Your task to perform on an android device: open sync settings in chrome Image 0: 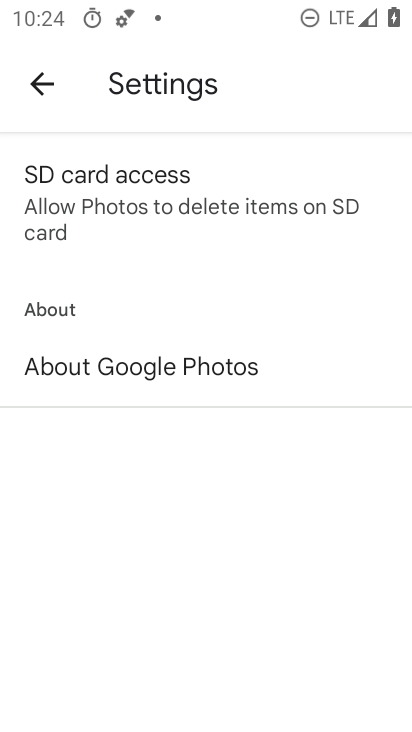
Step 0: press home button
Your task to perform on an android device: open sync settings in chrome Image 1: 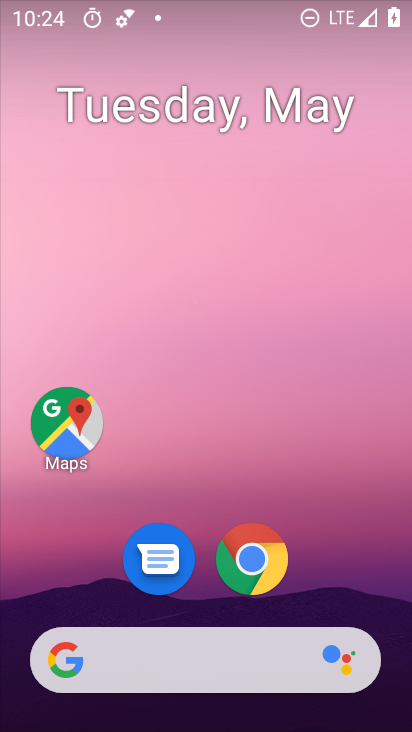
Step 1: drag from (395, 646) to (255, 0)
Your task to perform on an android device: open sync settings in chrome Image 2: 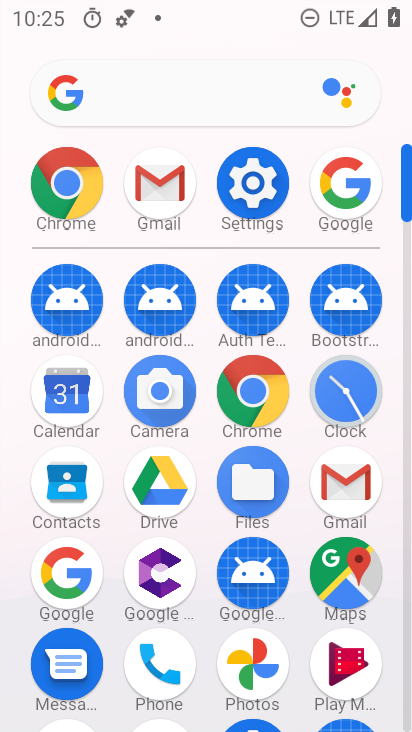
Step 2: click (253, 377)
Your task to perform on an android device: open sync settings in chrome Image 3: 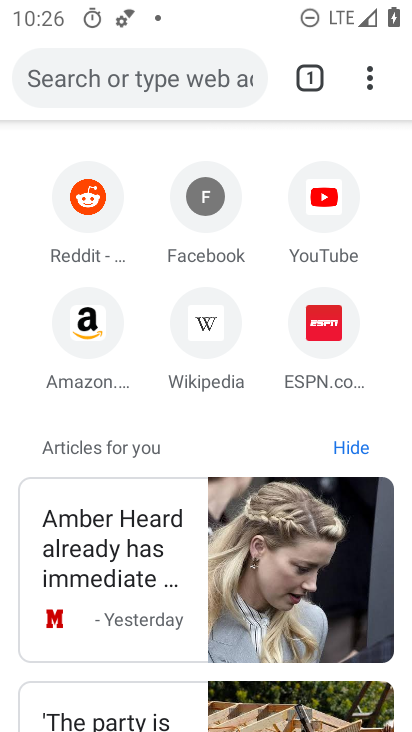
Step 3: click (377, 72)
Your task to perform on an android device: open sync settings in chrome Image 4: 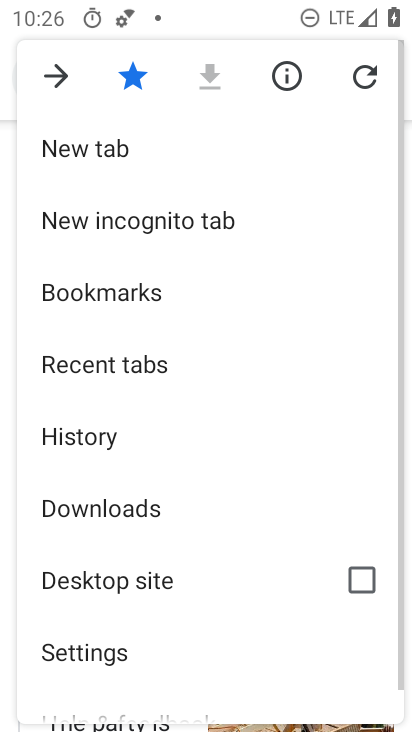
Step 4: click (133, 664)
Your task to perform on an android device: open sync settings in chrome Image 5: 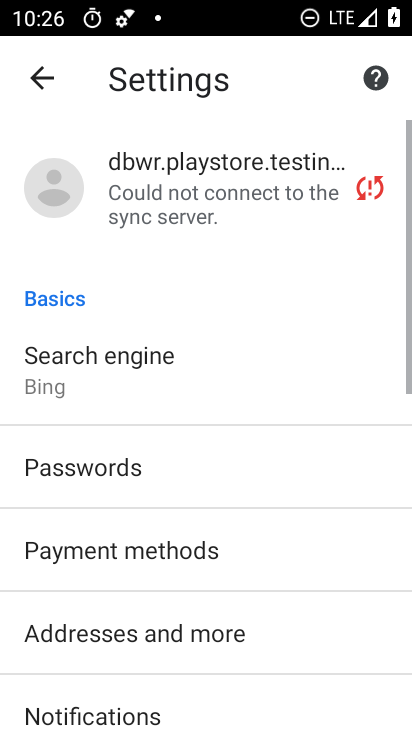
Step 5: drag from (140, 656) to (228, 48)
Your task to perform on an android device: open sync settings in chrome Image 6: 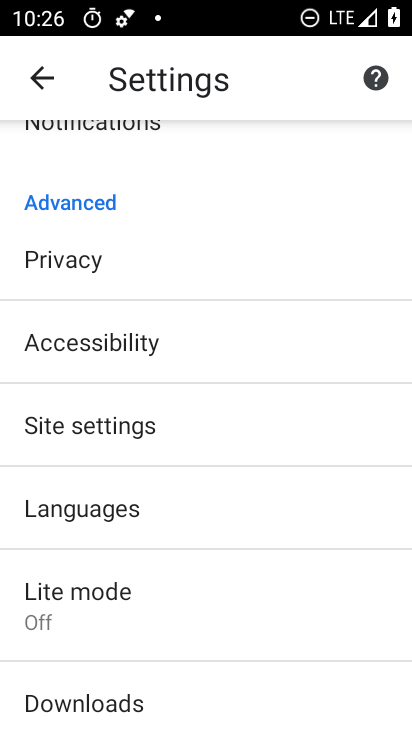
Step 6: click (117, 420)
Your task to perform on an android device: open sync settings in chrome Image 7: 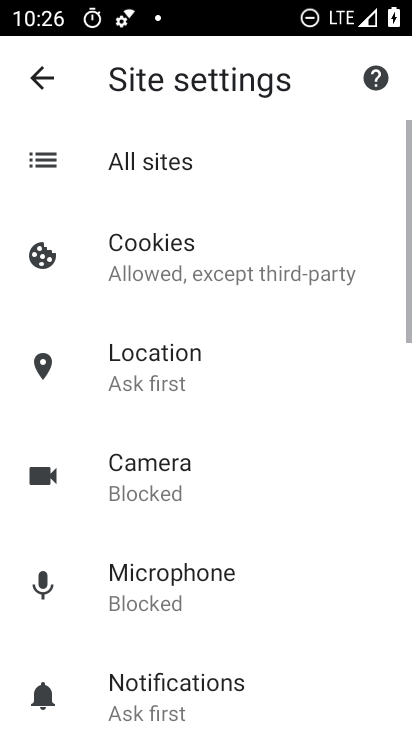
Step 7: click (185, 667)
Your task to perform on an android device: open sync settings in chrome Image 8: 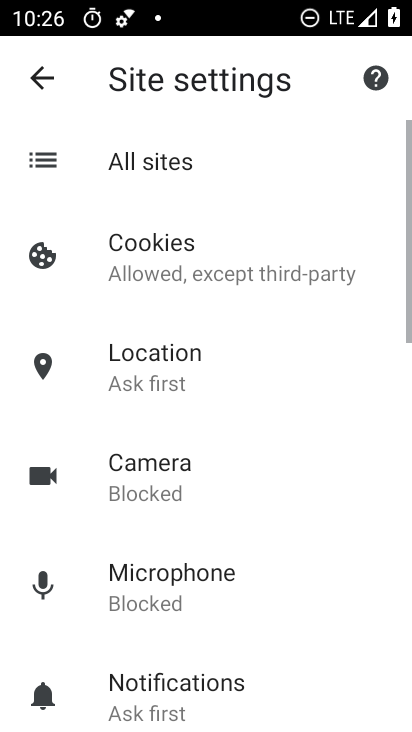
Step 8: drag from (274, 495) to (287, 85)
Your task to perform on an android device: open sync settings in chrome Image 9: 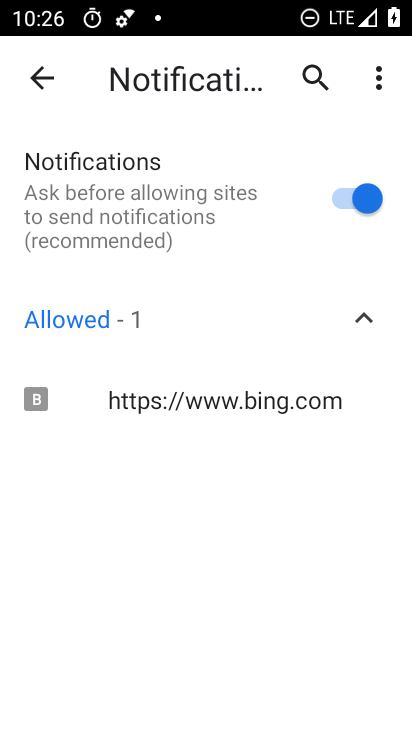
Step 9: press back button
Your task to perform on an android device: open sync settings in chrome Image 10: 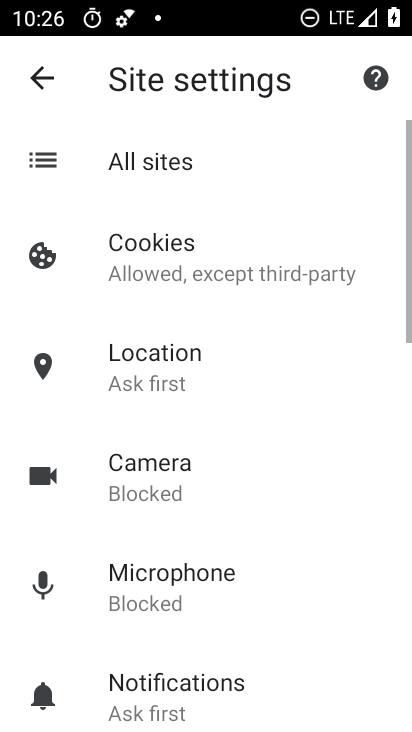
Step 10: drag from (189, 658) to (183, 30)
Your task to perform on an android device: open sync settings in chrome Image 11: 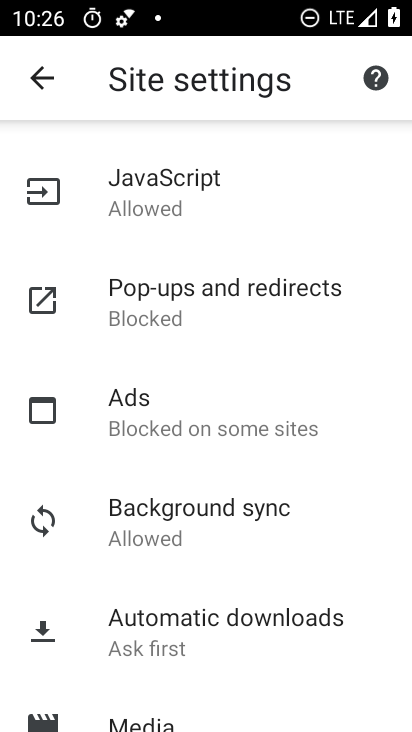
Step 11: click (193, 514)
Your task to perform on an android device: open sync settings in chrome Image 12: 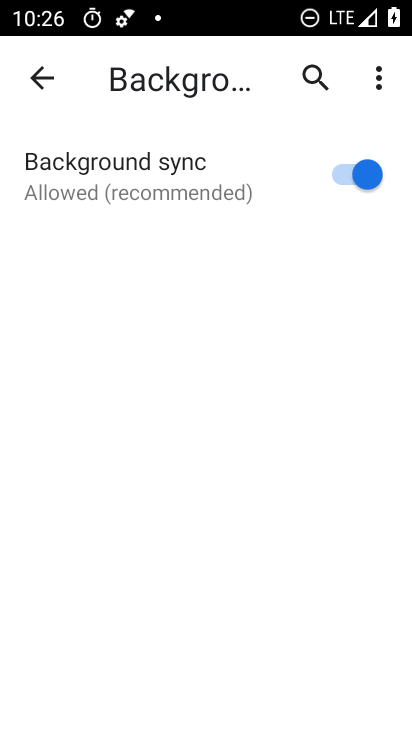
Step 12: task complete